Your task to perform on an android device: Open Google Maps and go to "Timeline" Image 0: 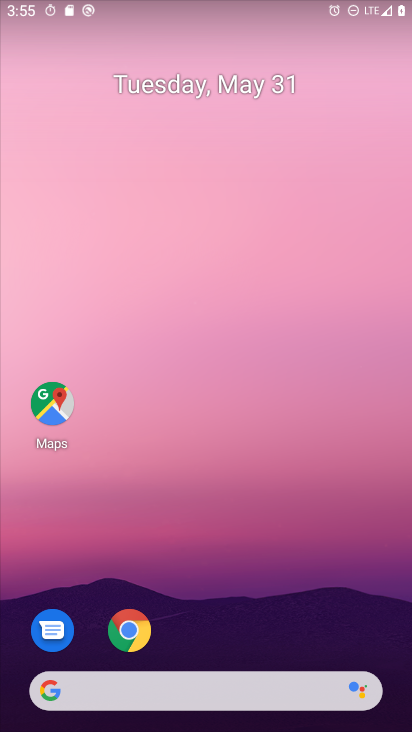
Step 0: drag from (207, 678) to (343, 0)
Your task to perform on an android device: Open Google Maps and go to "Timeline" Image 1: 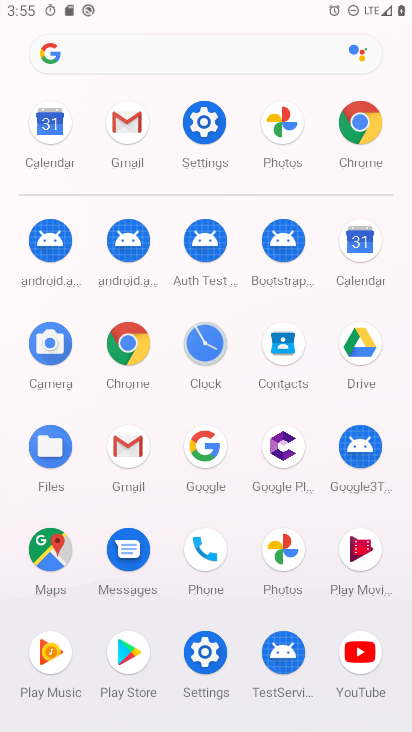
Step 1: click (42, 558)
Your task to perform on an android device: Open Google Maps and go to "Timeline" Image 2: 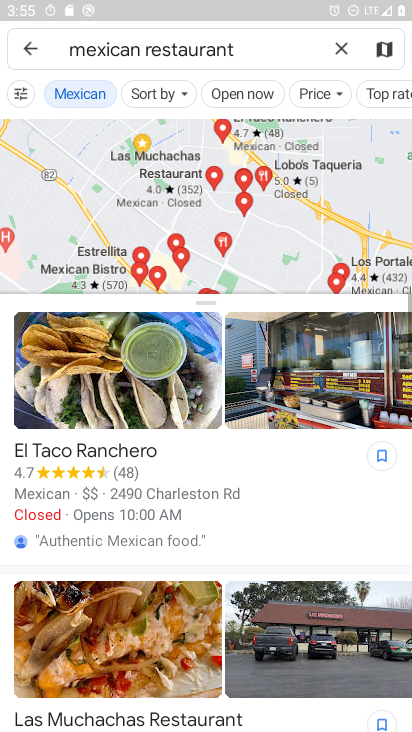
Step 2: press back button
Your task to perform on an android device: Open Google Maps and go to "Timeline" Image 3: 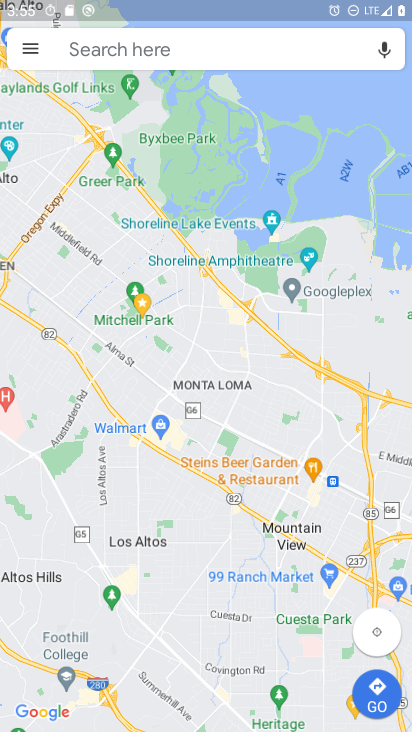
Step 3: click (23, 47)
Your task to perform on an android device: Open Google Maps and go to "Timeline" Image 4: 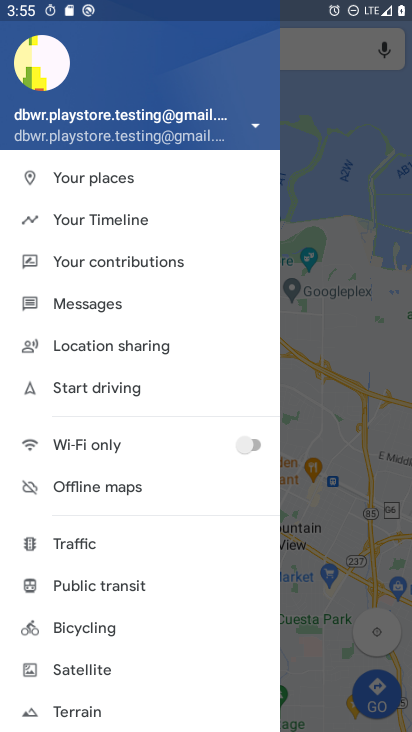
Step 4: click (99, 215)
Your task to perform on an android device: Open Google Maps and go to "Timeline" Image 5: 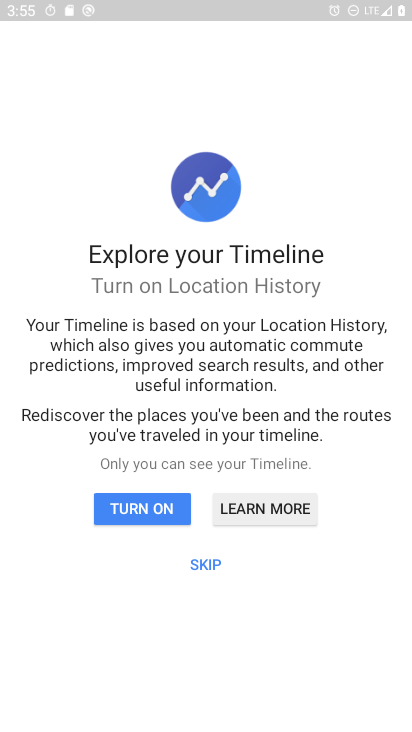
Step 5: click (200, 566)
Your task to perform on an android device: Open Google Maps and go to "Timeline" Image 6: 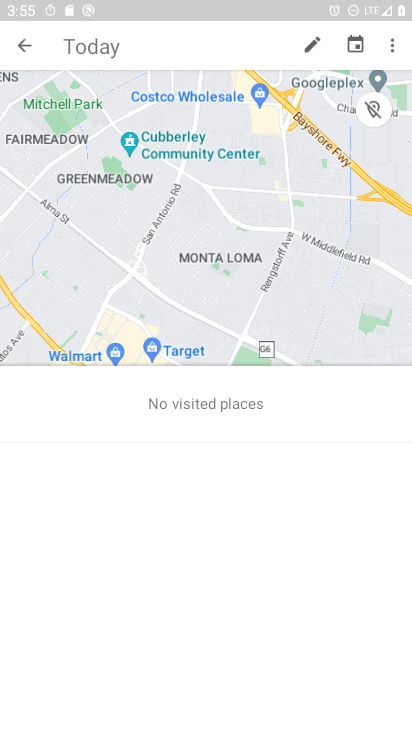
Step 6: task complete